Your task to perform on an android device: Do I have any events today? Image 0: 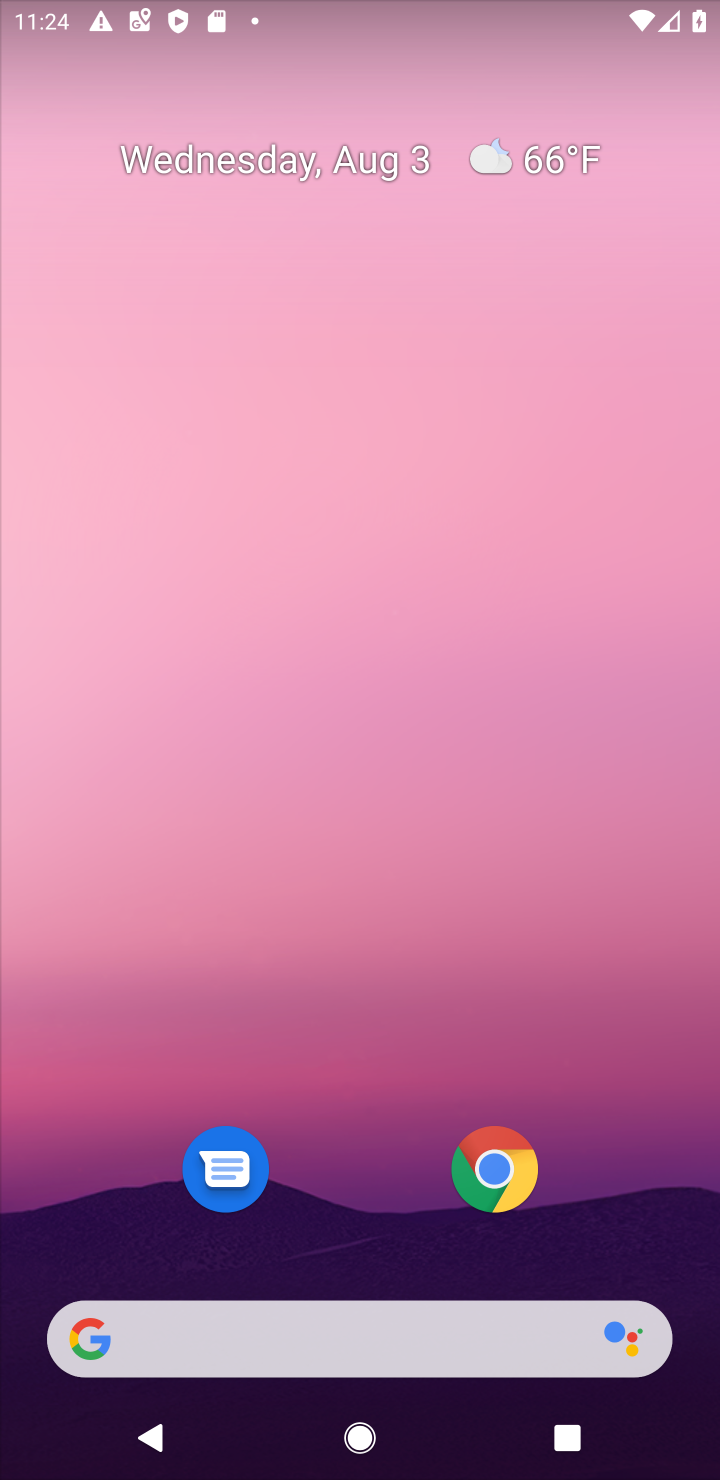
Step 0: drag from (444, 612) to (490, 55)
Your task to perform on an android device: Do I have any events today? Image 1: 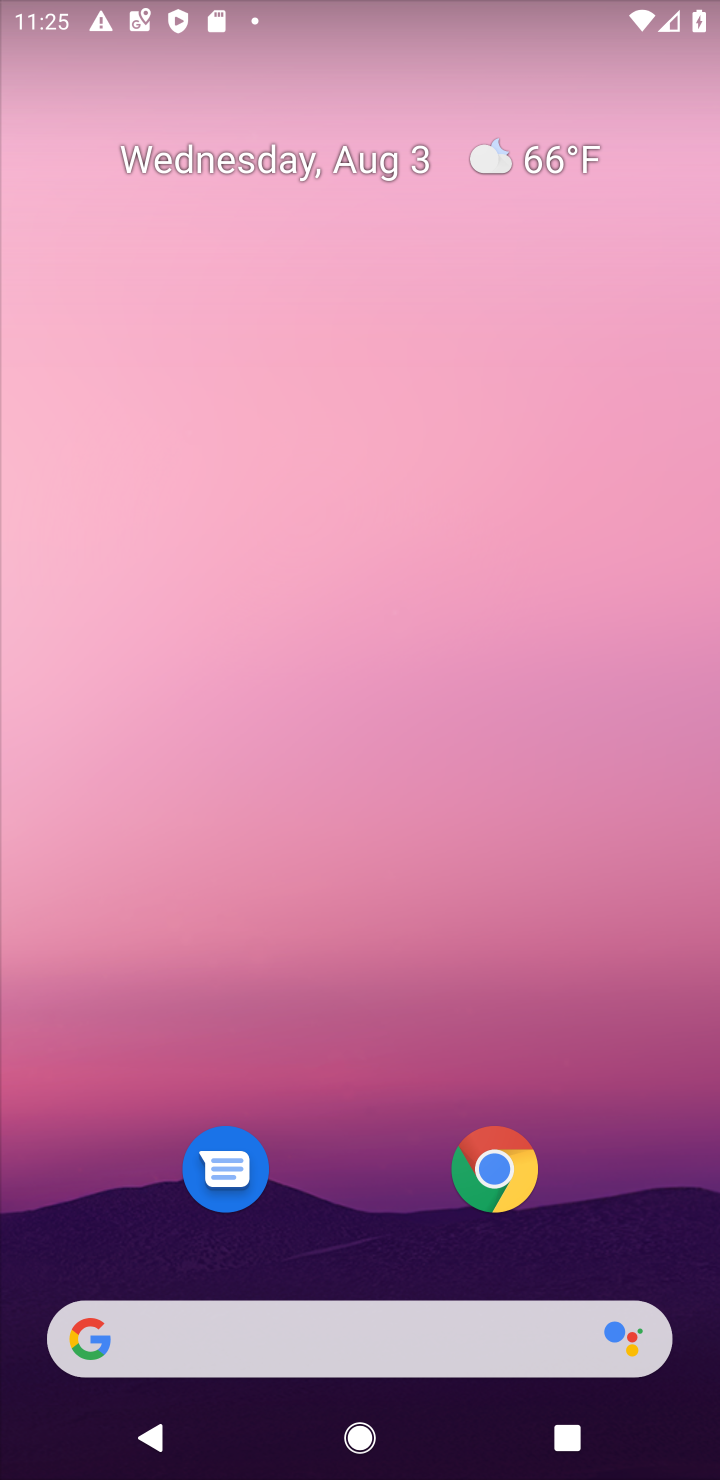
Step 1: drag from (369, 1225) to (429, 21)
Your task to perform on an android device: Do I have any events today? Image 2: 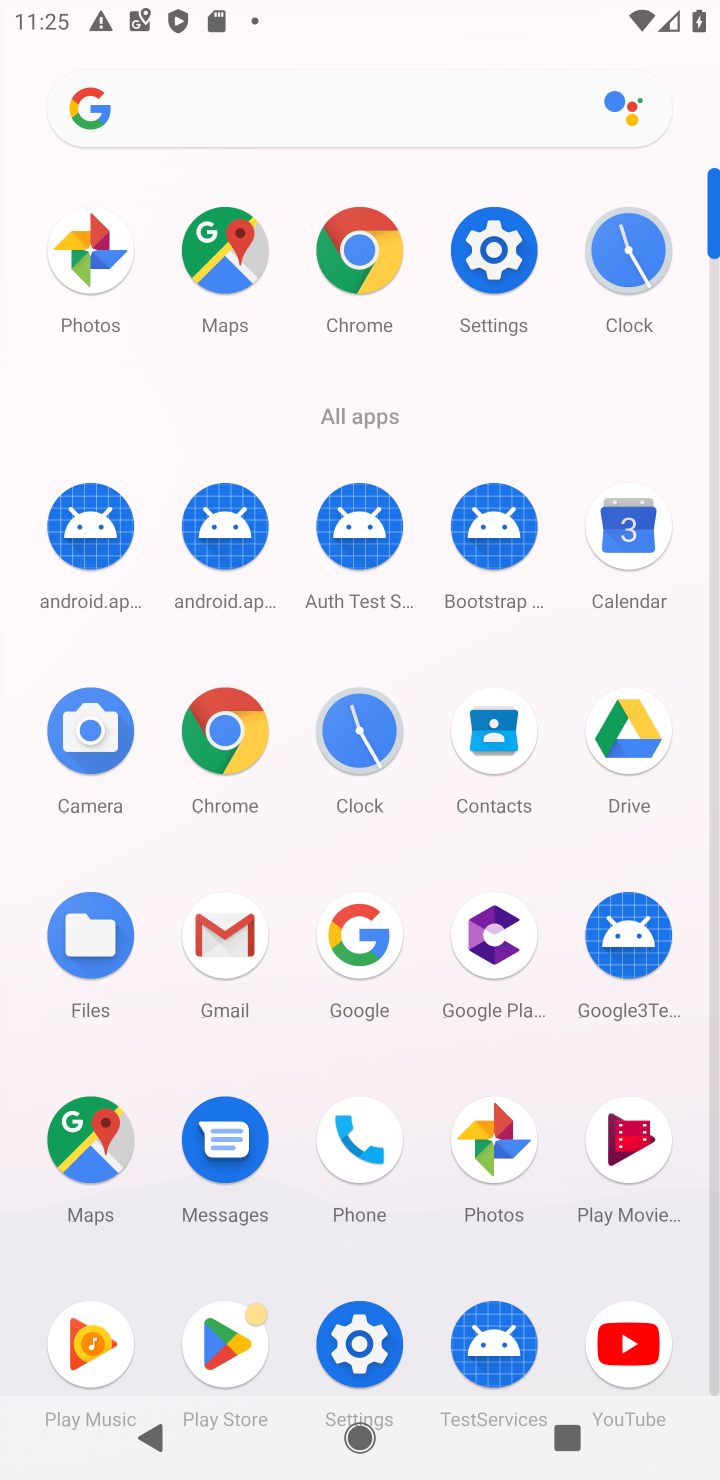
Step 2: click (624, 537)
Your task to perform on an android device: Do I have any events today? Image 3: 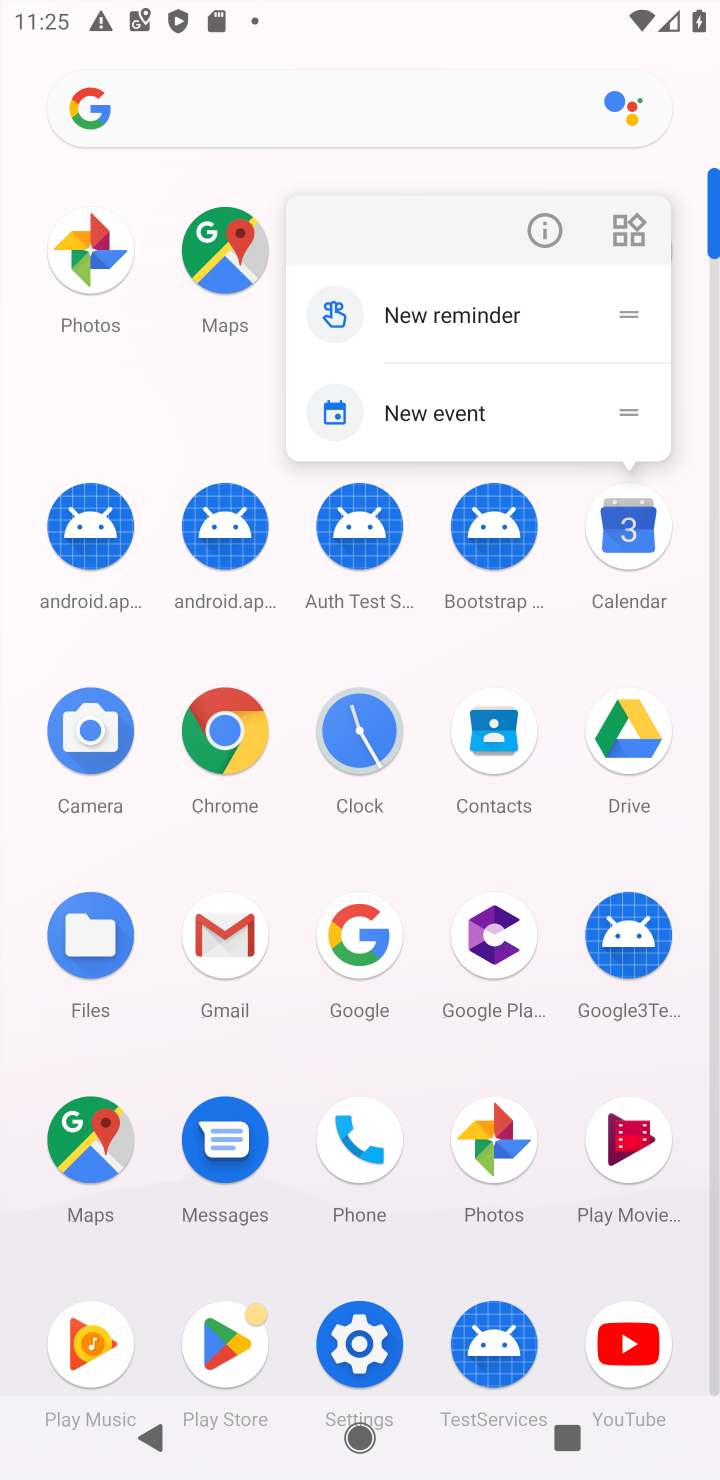
Step 3: click (624, 537)
Your task to perform on an android device: Do I have any events today? Image 4: 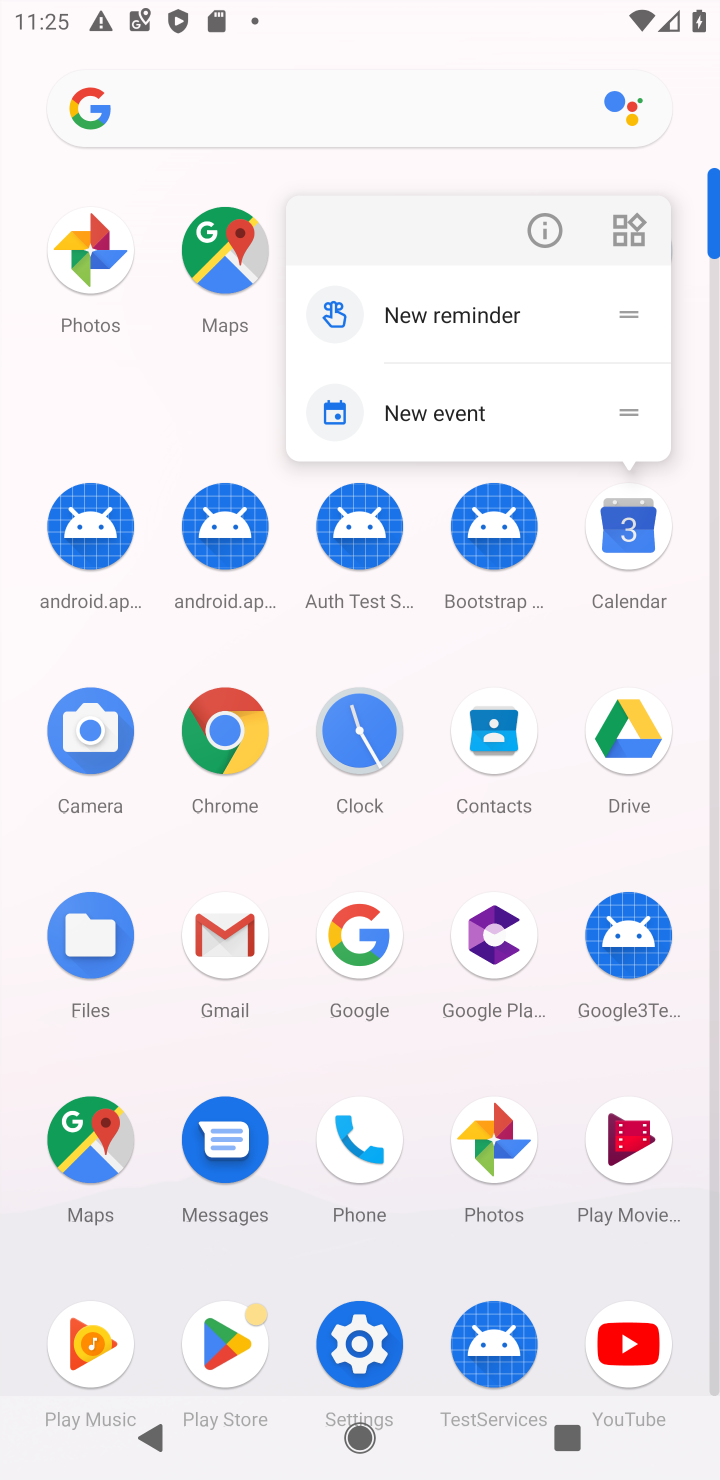
Step 4: click (627, 550)
Your task to perform on an android device: Do I have any events today? Image 5: 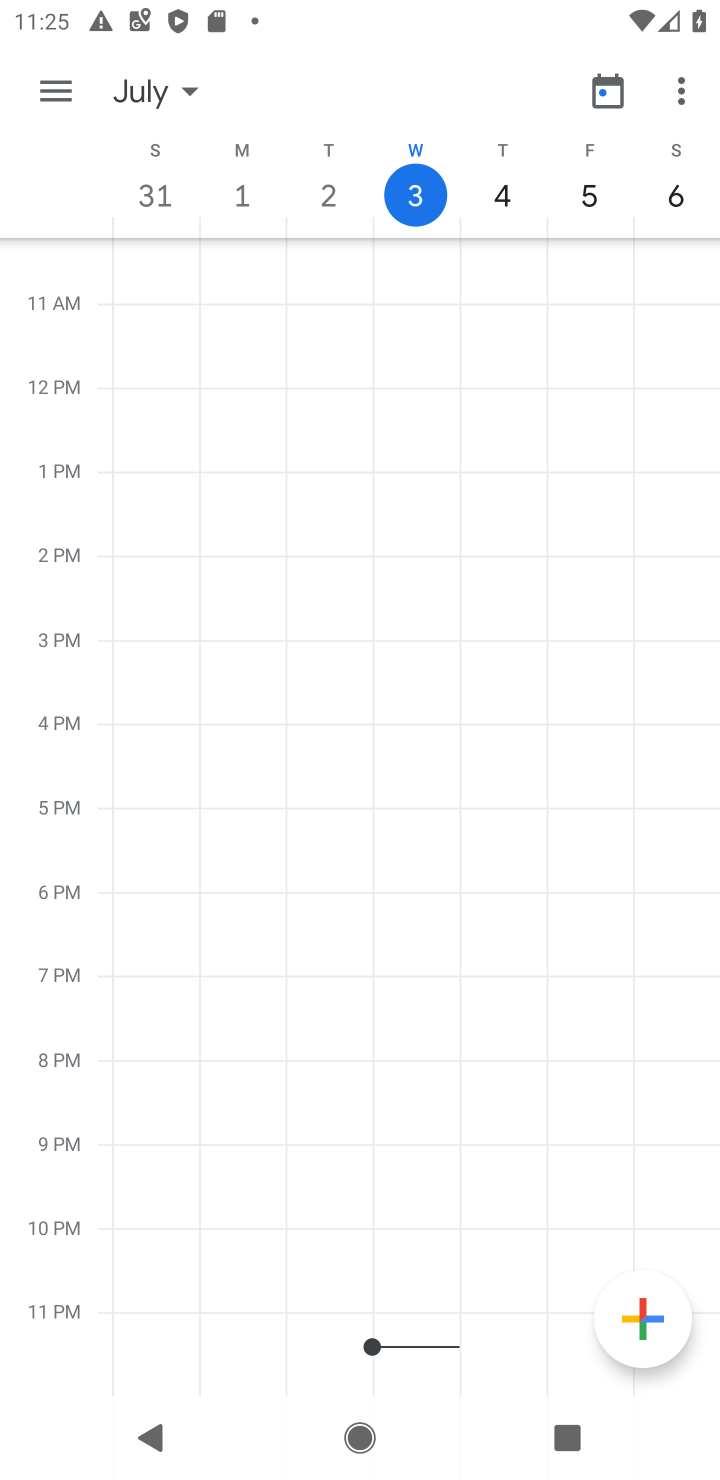
Step 5: click (52, 72)
Your task to perform on an android device: Do I have any events today? Image 6: 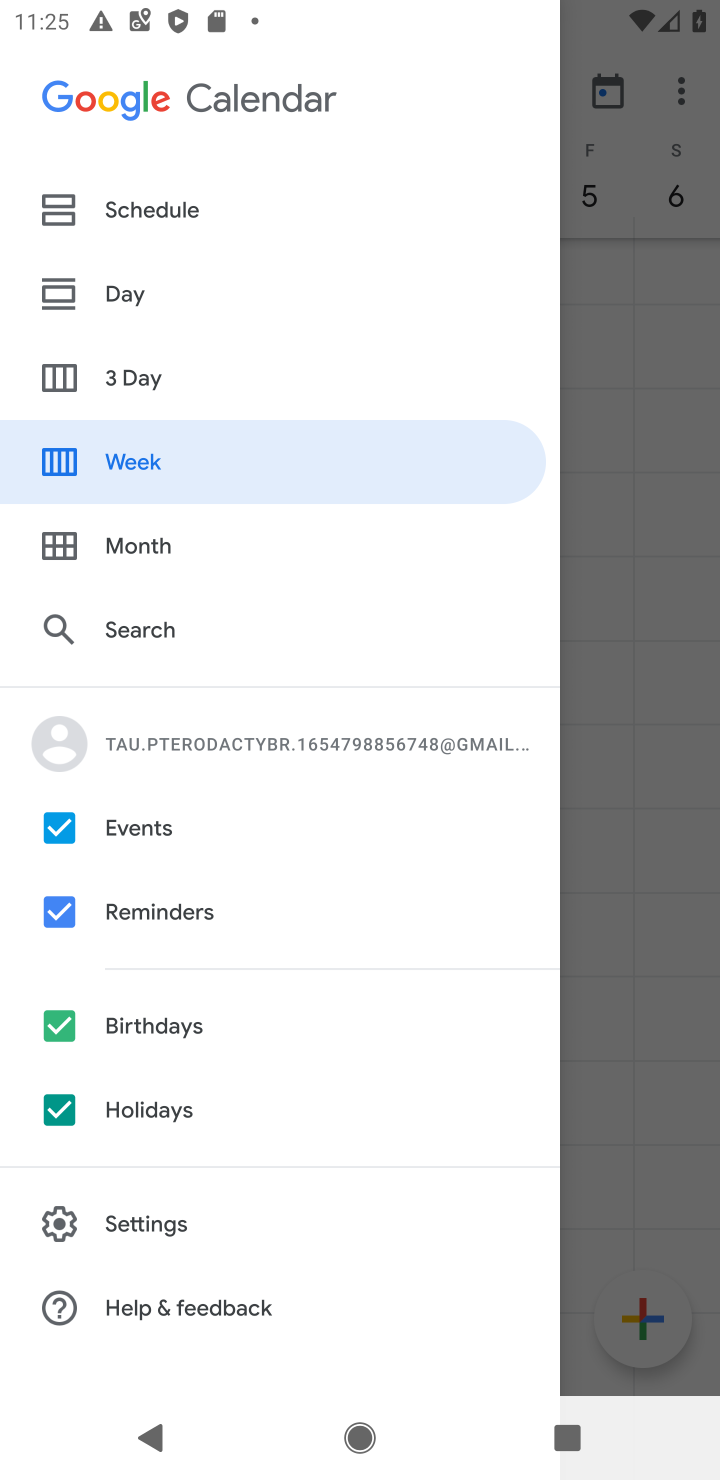
Step 6: click (133, 314)
Your task to perform on an android device: Do I have any events today? Image 7: 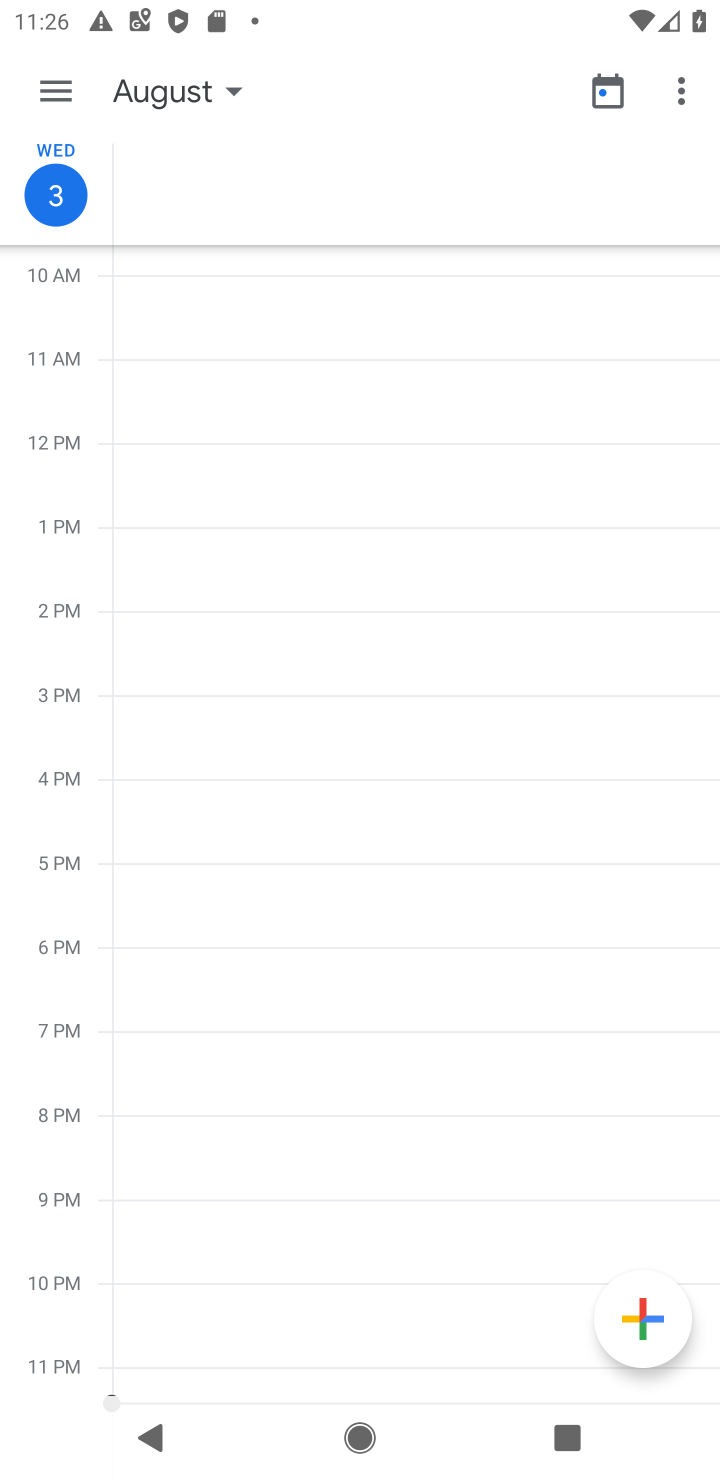
Step 7: task complete